Your task to perform on an android device: Toggle the flashlight Image 0: 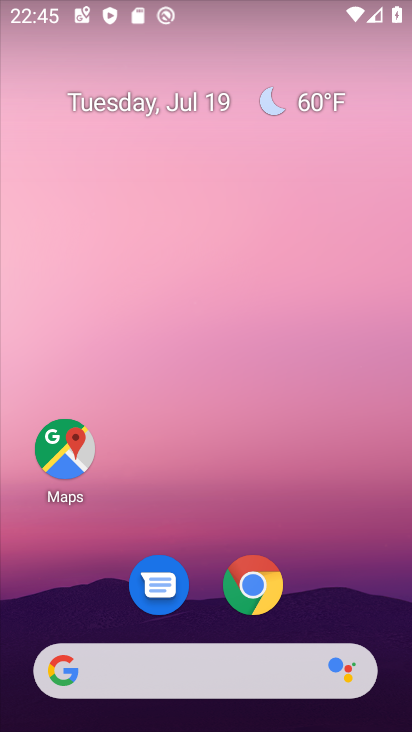
Step 0: drag from (341, 563) to (313, 94)
Your task to perform on an android device: Toggle the flashlight Image 1: 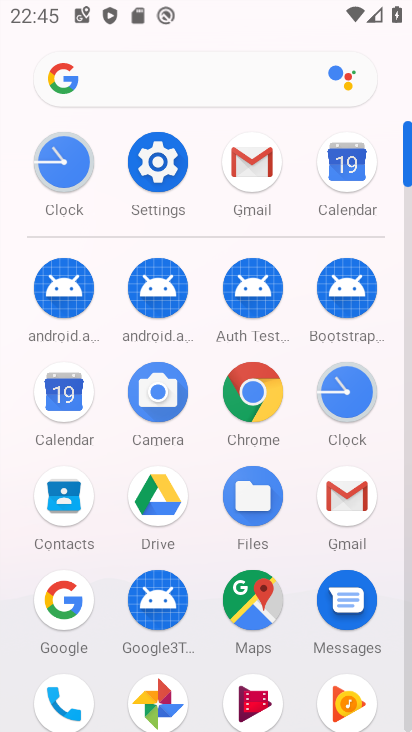
Step 1: click (161, 169)
Your task to perform on an android device: Toggle the flashlight Image 2: 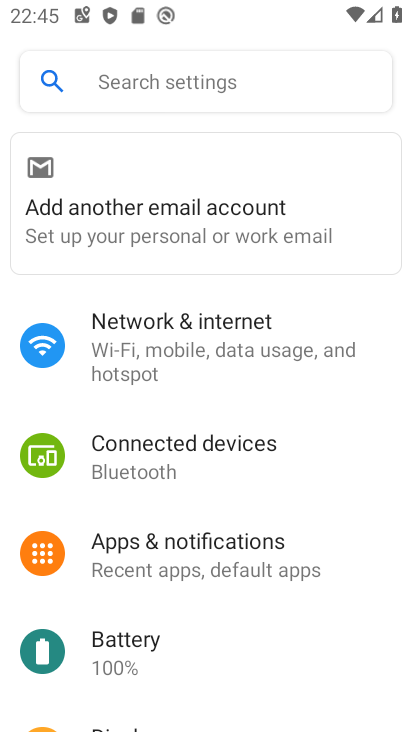
Step 2: click (191, 76)
Your task to perform on an android device: Toggle the flashlight Image 3: 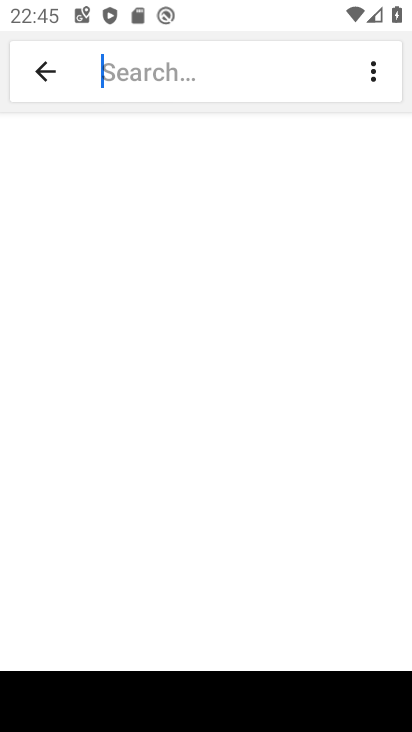
Step 3: type "Flashlight"
Your task to perform on an android device: Toggle the flashlight Image 4: 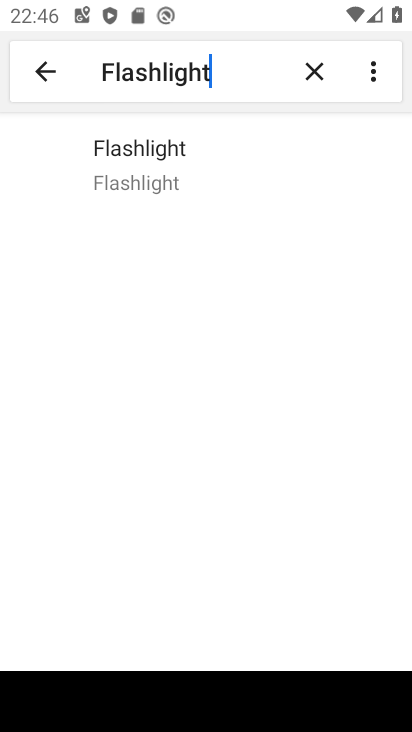
Step 4: click (156, 160)
Your task to perform on an android device: Toggle the flashlight Image 5: 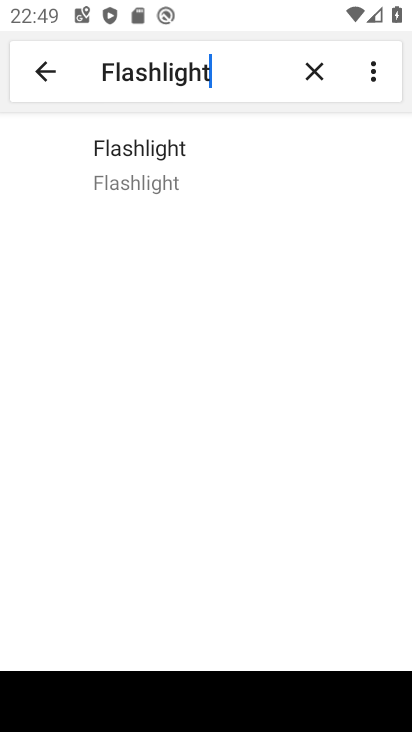
Step 5: task complete